Your task to perform on an android device: What's on my calendar tomorrow? Image 0: 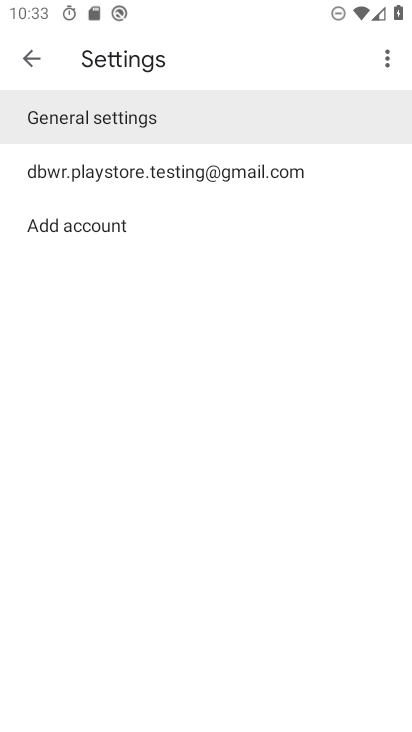
Step 0: press home button
Your task to perform on an android device: What's on my calendar tomorrow? Image 1: 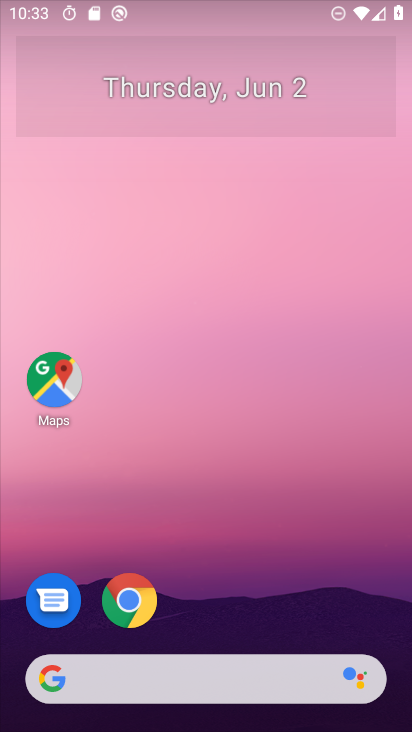
Step 1: drag from (228, 628) to (242, 95)
Your task to perform on an android device: What's on my calendar tomorrow? Image 2: 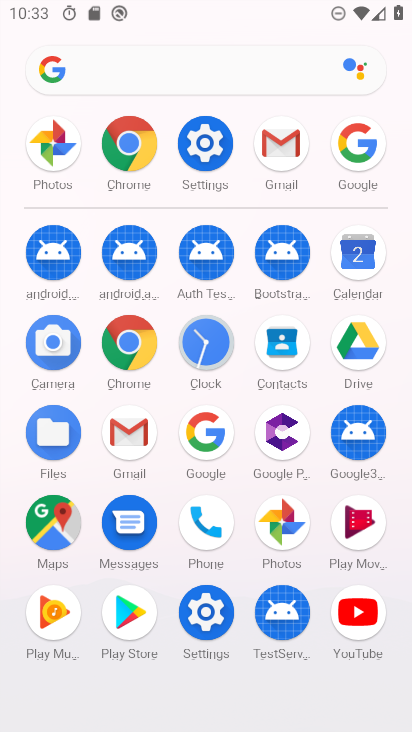
Step 2: click (369, 261)
Your task to perform on an android device: What's on my calendar tomorrow? Image 3: 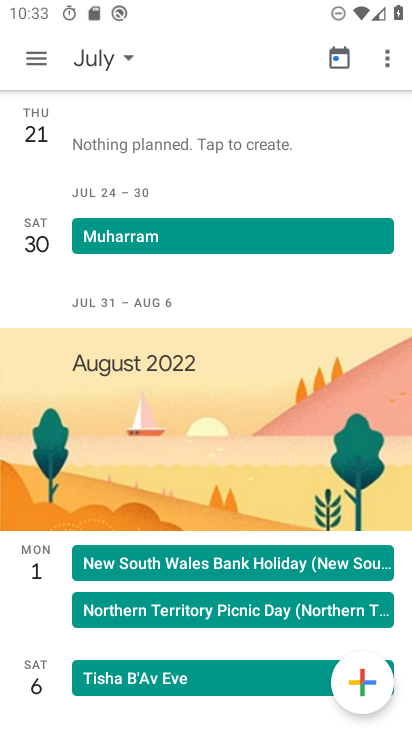
Step 3: click (108, 56)
Your task to perform on an android device: What's on my calendar tomorrow? Image 4: 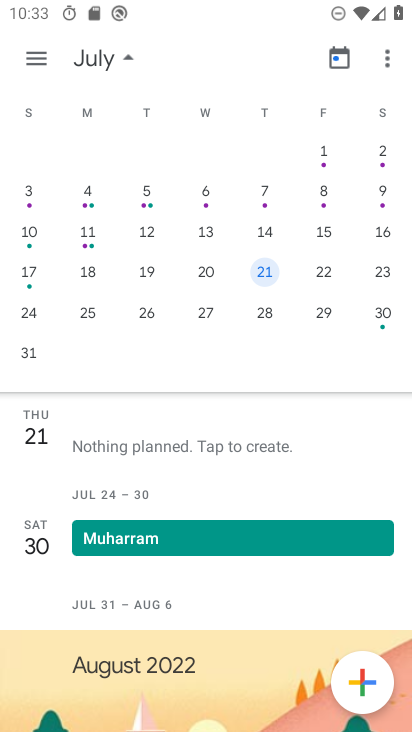
Step 4: drag from (91, 357) to (406, 322)
Your task to perform on an android device: What's on my calendar tomorrow? Image 5: 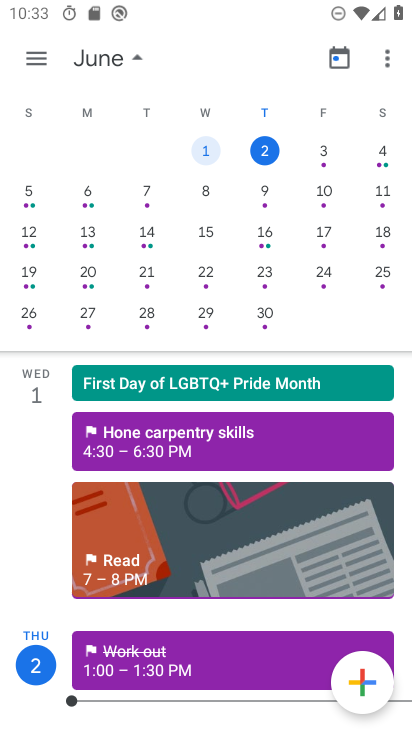
Step 5: click (327, 156)
Your task to perform on an android device: What's on my calendar tomorrow? Image 6: 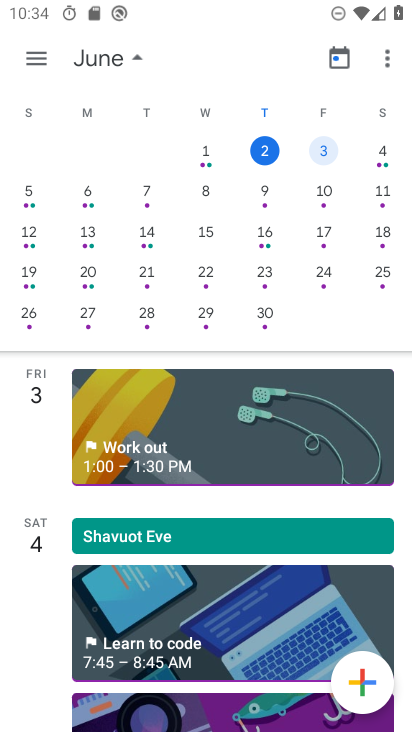
Step 6: task complete